Your task to perform on an android device: find snoozed emails in the gmail app Image 0: 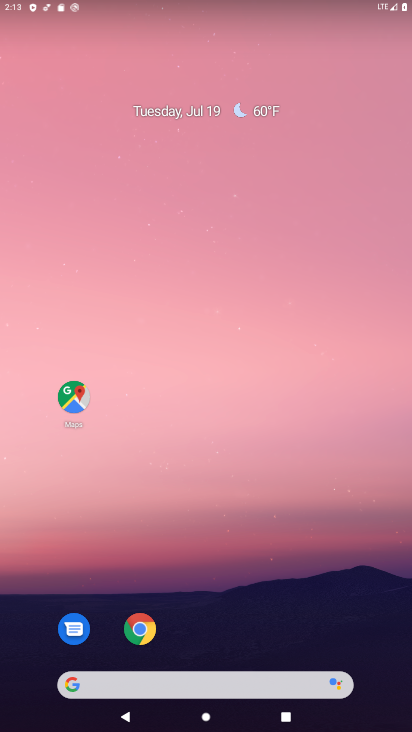
Step 0: drag from (187, 636) to (245, 203)
Your task to perform on an android device: find snoozed emails in the gmail app Image 1: 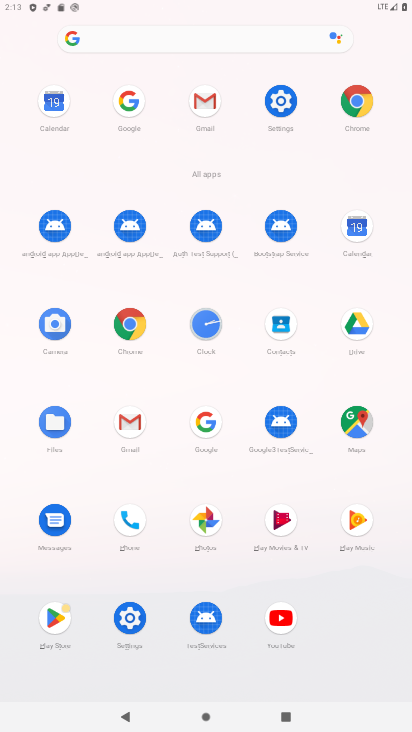
Step 1: click (217, 122)
Your task to perform on an android device: find snoozed emails in the gmail app Image 2: 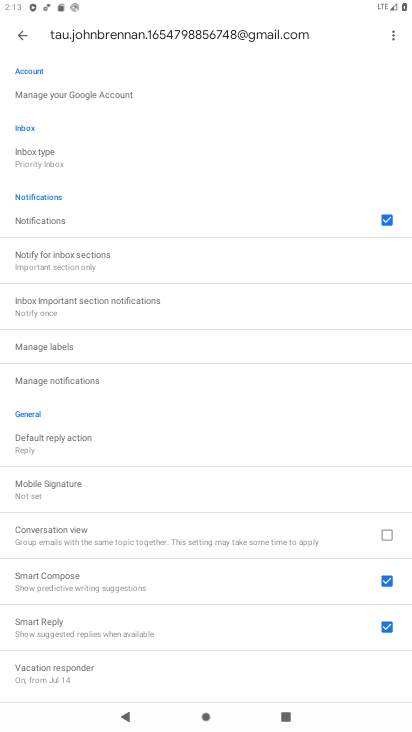
Step 2: click (20, 37)
Your task to perform on an android device: find snoozed emails in the gmail app Image 3: 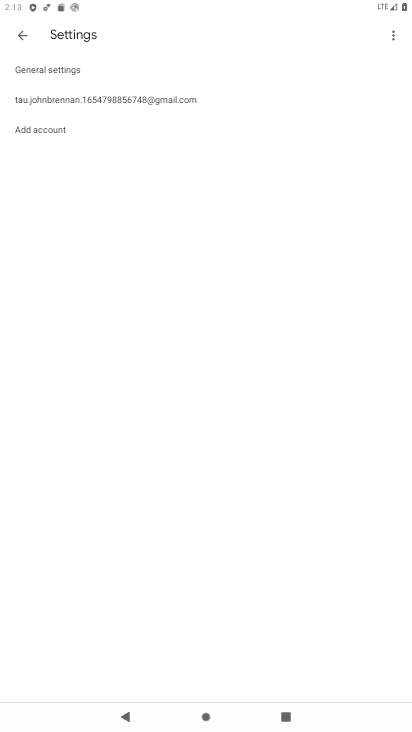
Step 3: click (20, 37)
Your task to perform on an android device: find snoozed emails in the gmail app Image 4: 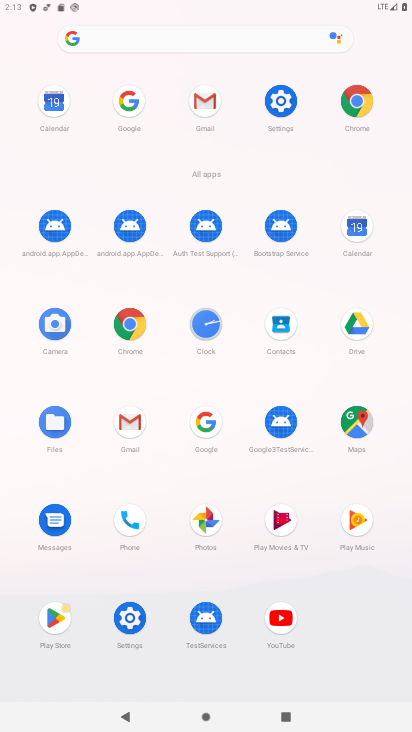
Step 4: click (214, 96)
Your task to perform on an android device: find snoozed emails in the gmail app Image 5: 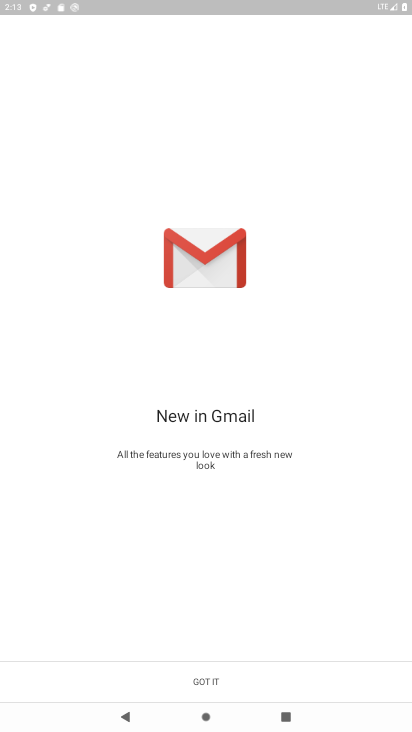
Step 5: click (226, 665)
Your task to perform on an android device: find snoozed emails in the gmail app Image 6: 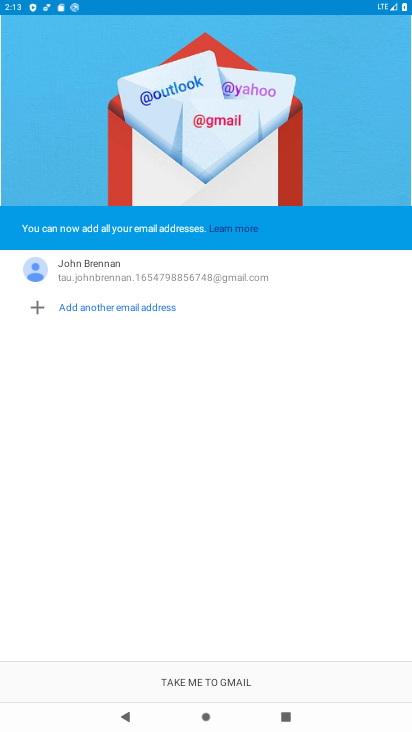
Step 6: click (173, 676)
Your task to perform on an android device: find snoozed emails in the gmail app Image 7: 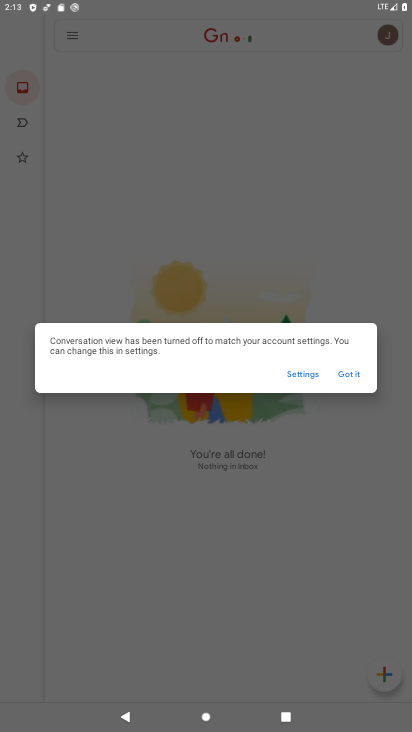
Step 7: click (345, 376)
Your task to perform on an android device: find snoozed emails in the gmail app Image 8: 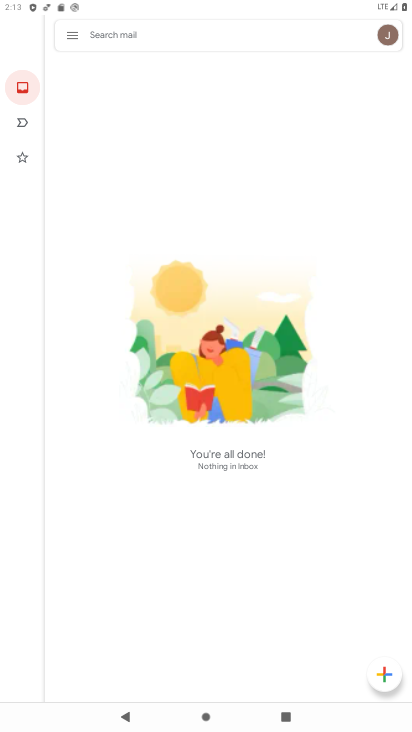
Step 8: click (66, 38)
Your task to perform on an android device: find snoozed emails in the gmail app Image 9: 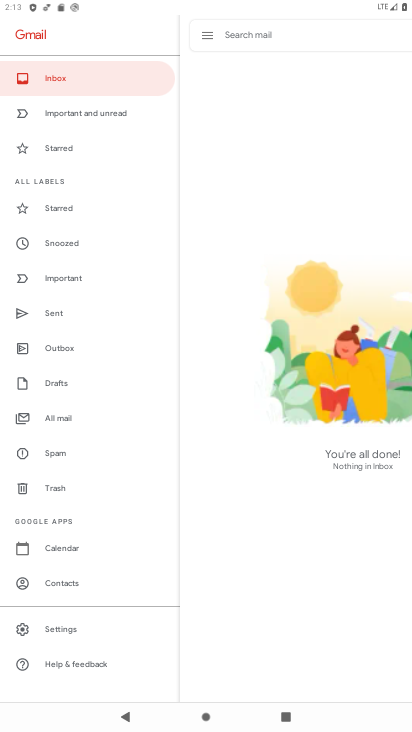
Step 9: click (76, 248)
Your task to perform on an android device: find snoozed emails in the gmail app Image 10: 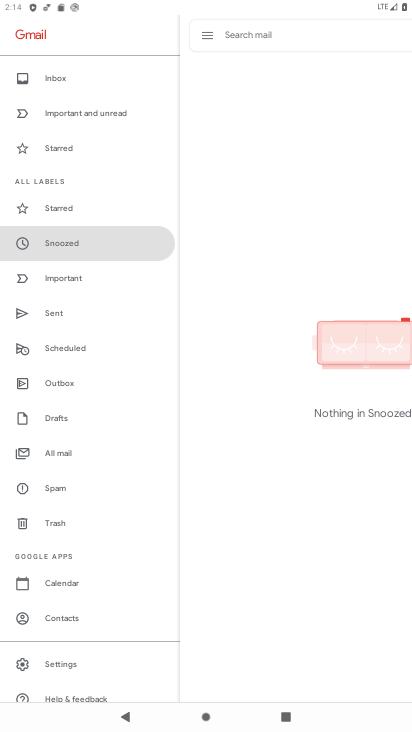
Step 10: task complete